Your task to perform on an android device: open wifi settings Image 0: 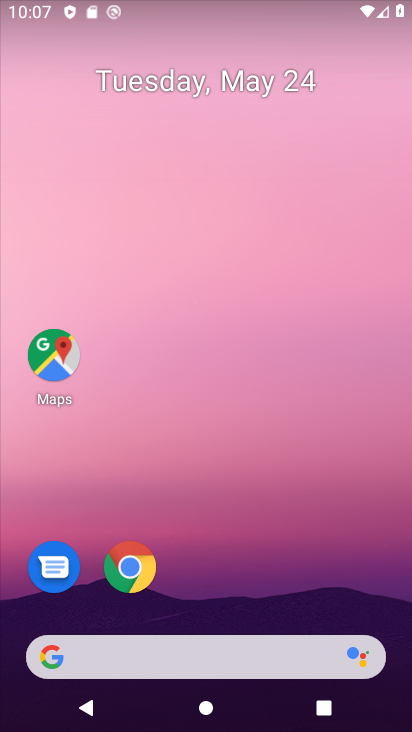
Step 0: drag from (402, 691) to (344, 359)
Your task to perform on an android device: open wifi settings Image 1: 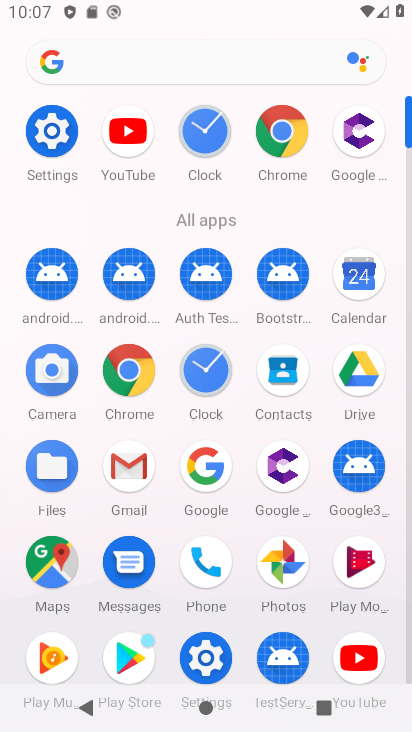
Step 1: click (200, 663)
Your task to perform on an android device: open wifi settings Image 2: 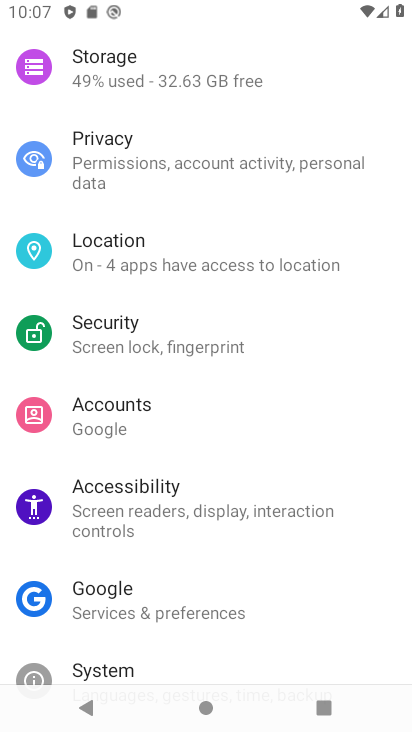
Step 2: drag from (352, 77) to (306, 531)
Your task to perform on an android device: open wifi settings Image 3: 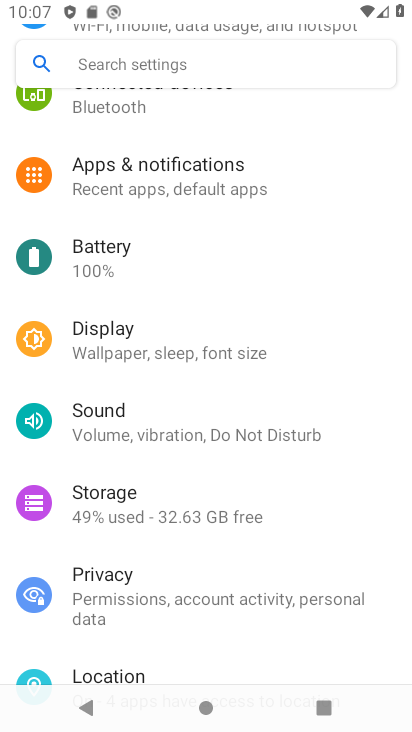
Step 3: drag from (337, 224) to (336, 616)
Your task to perform on an android device: open wifi settings Image 4: 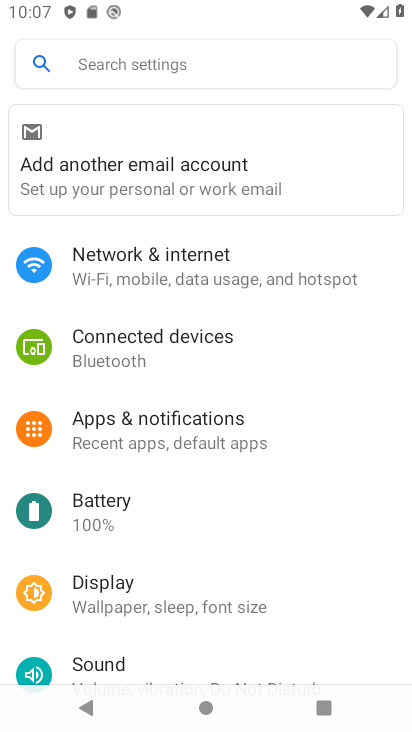
Step 4: click (179, 234)
Your task to perform on an android device: open wifi settings Image 5: 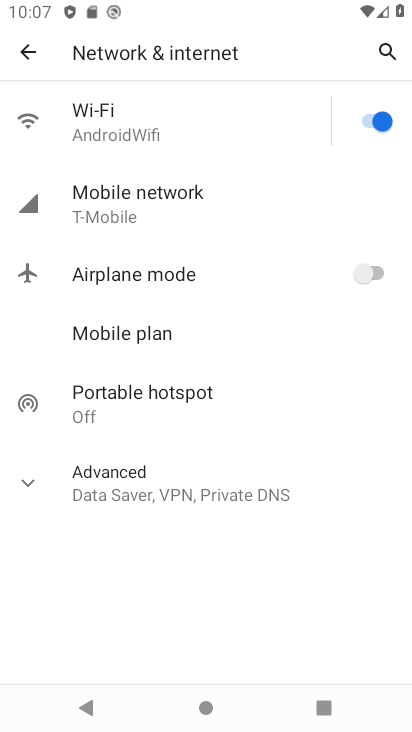
Step 5: task complete